Your task to perform on an android device: change the clock style Image 0: 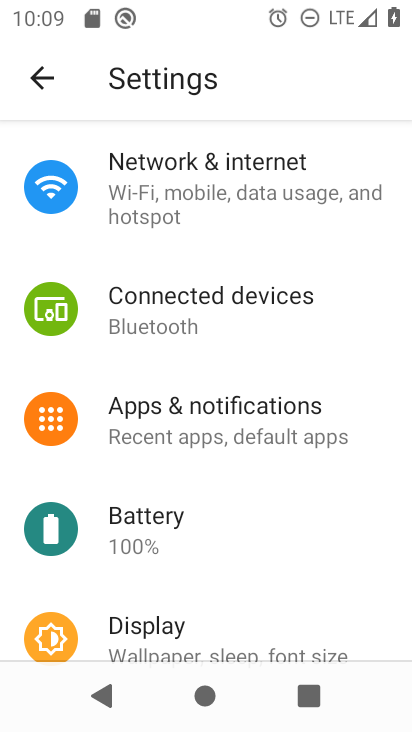
Step 0: press home button
Your task to perform on an android device: change the clock style Image 1: 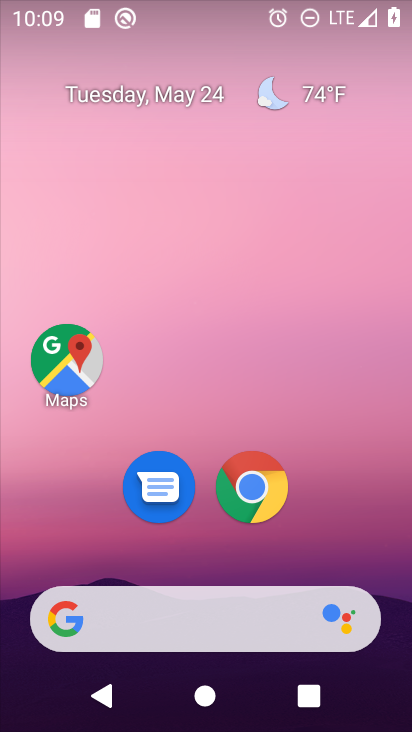
Step 1: drag from (356, 575) to (300, 15)
Your task to perform on an android device: change the clock style Image 2: 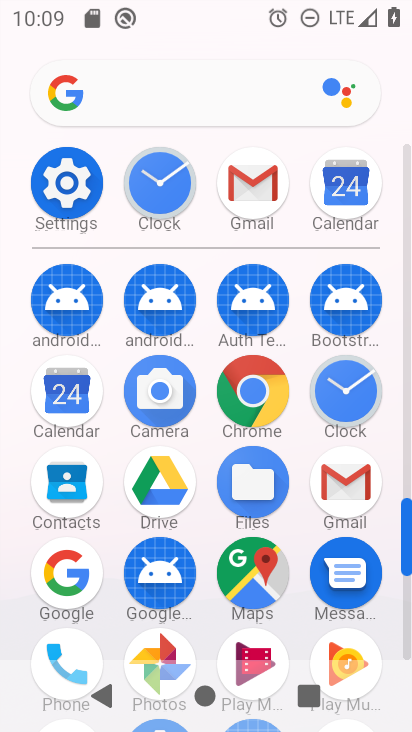
Step 2: click (157, 180)
Your task to perform on an android device: change the clock style Image 3: 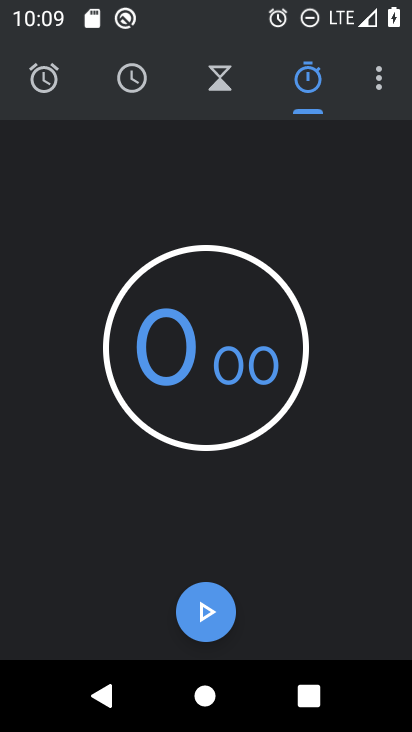
Step 3: click (380, 84)
Your task to perform on an android device: change the clock style Image 4: 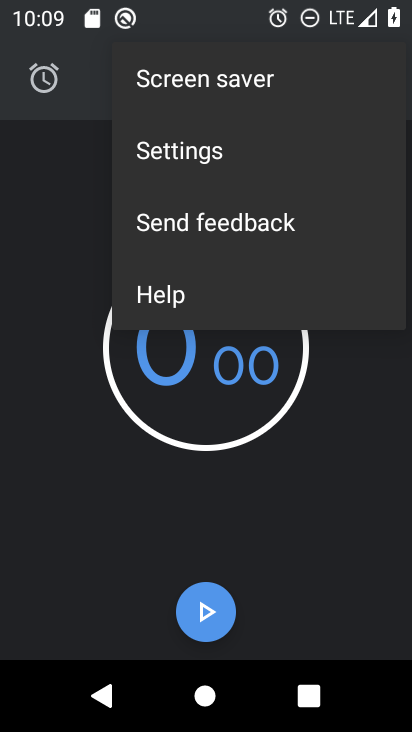
Step 4: click (189, 152)
Your task to perform on an android device: change the clock style Image 5: 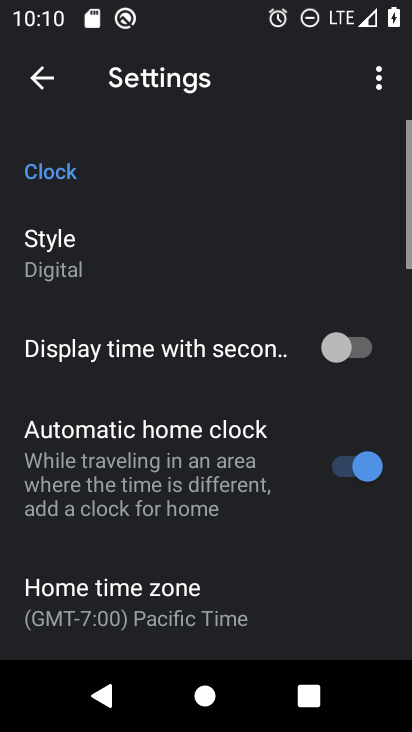
Step 5: click (56, 259)
Your task to perform on an android device: change the clock style Image 6: 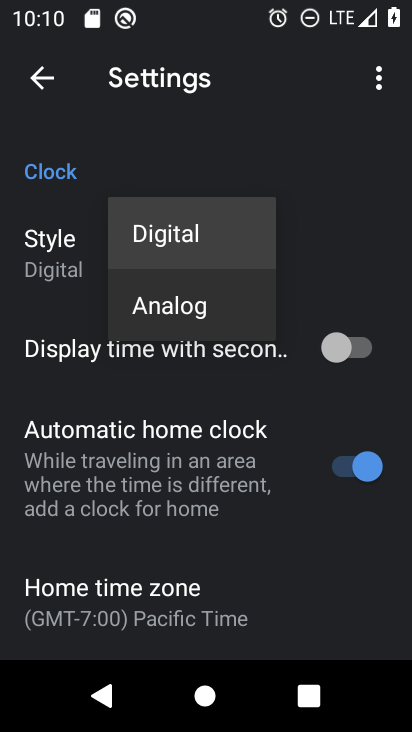
Step 6: click (155, 314)
Your task to perform on an android device: change the clock style Image 7: 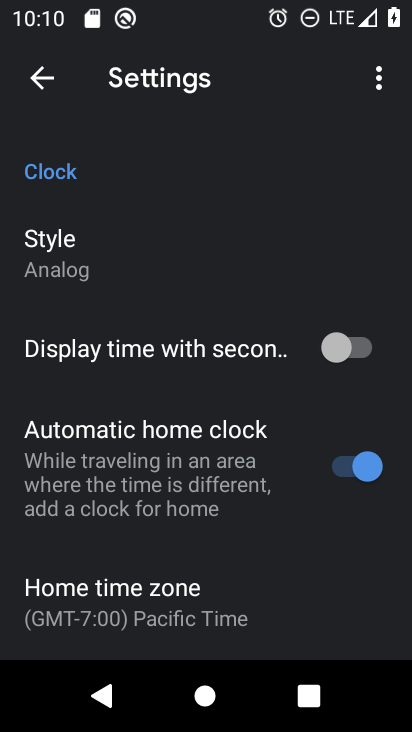
Step 7: task complete